Your task to perform on an android device: Do I have any events this weekend? Image 0: 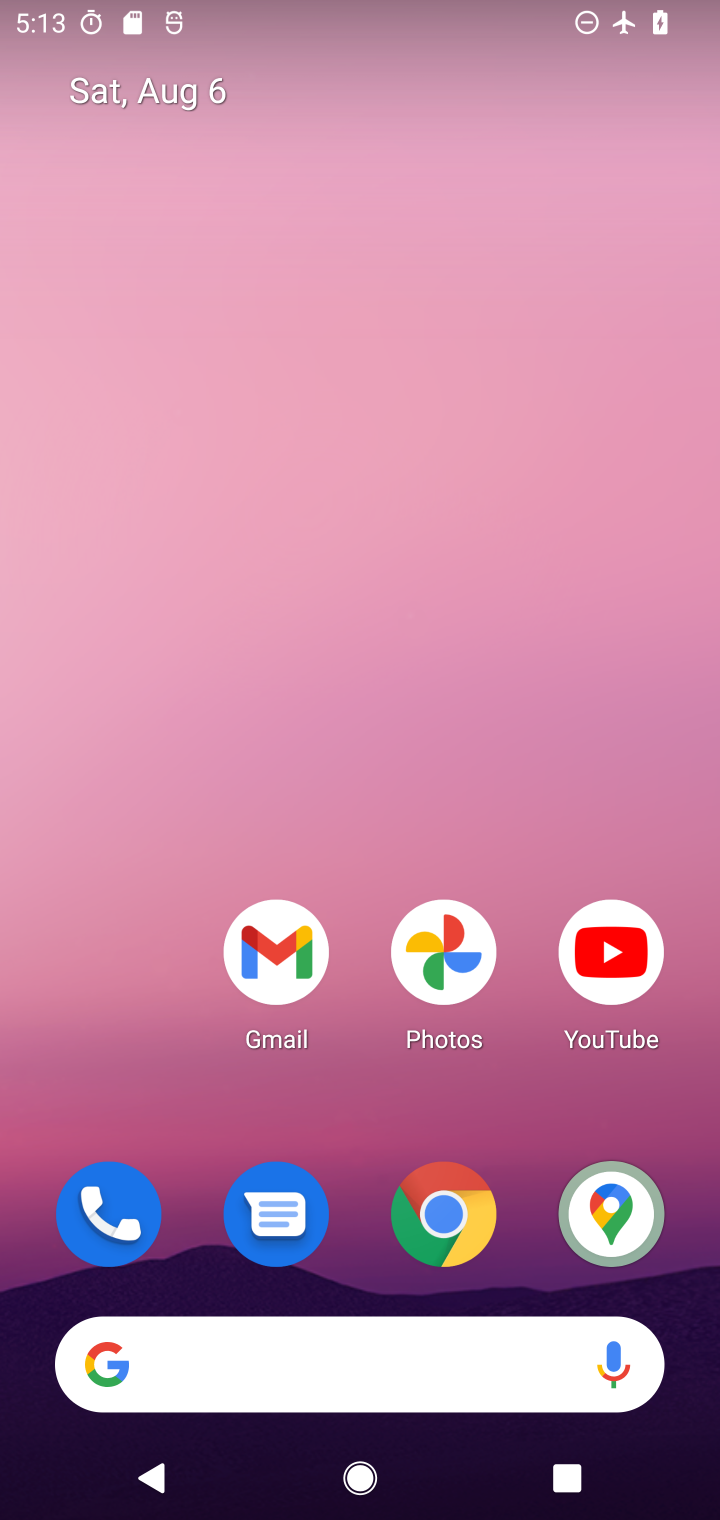
Step 0: drag from (348, 1272) to (348, 412)
Your task to perform on an android device: Do I have any events this weekend? Image 1: 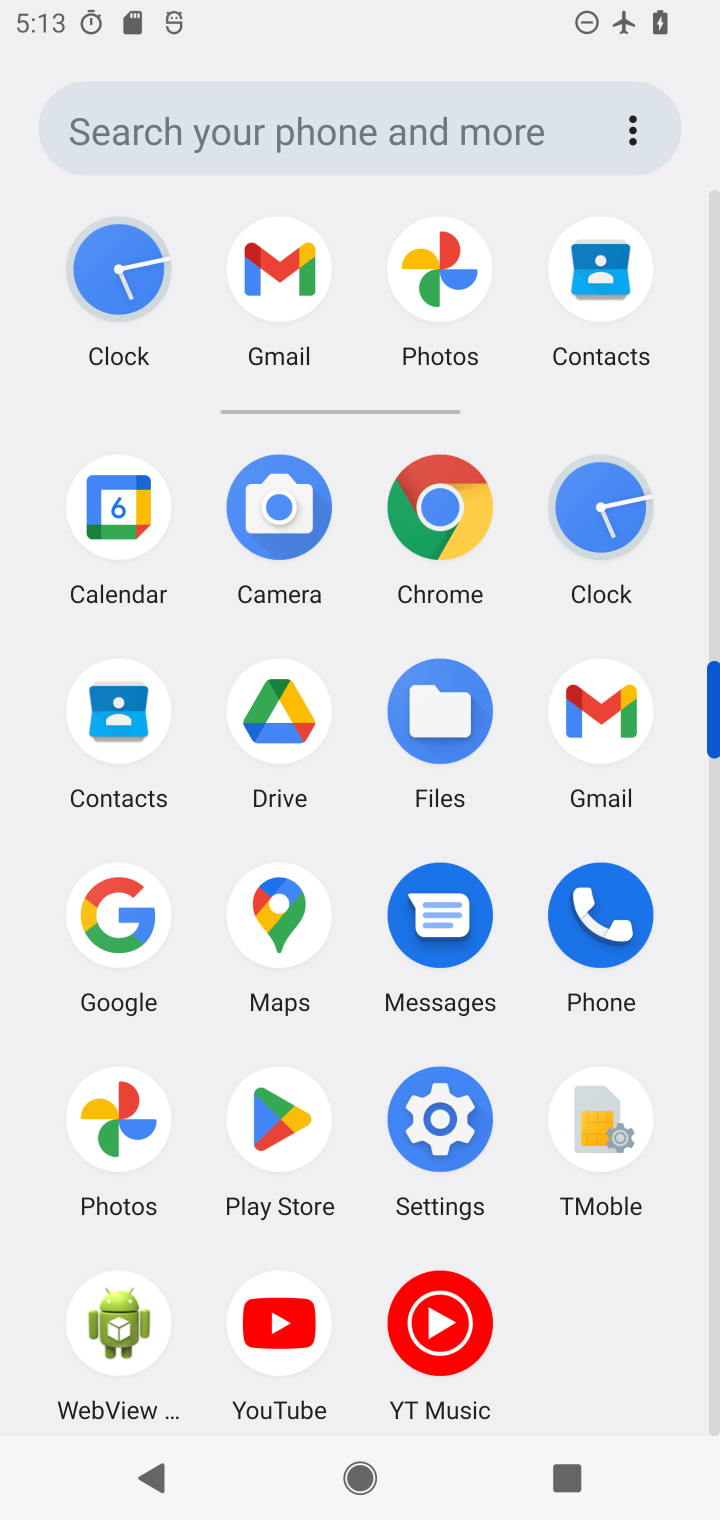
Step 1: click (91, 519)
Your task to perform on an android device: Do I have any events this weekend? Image 2: 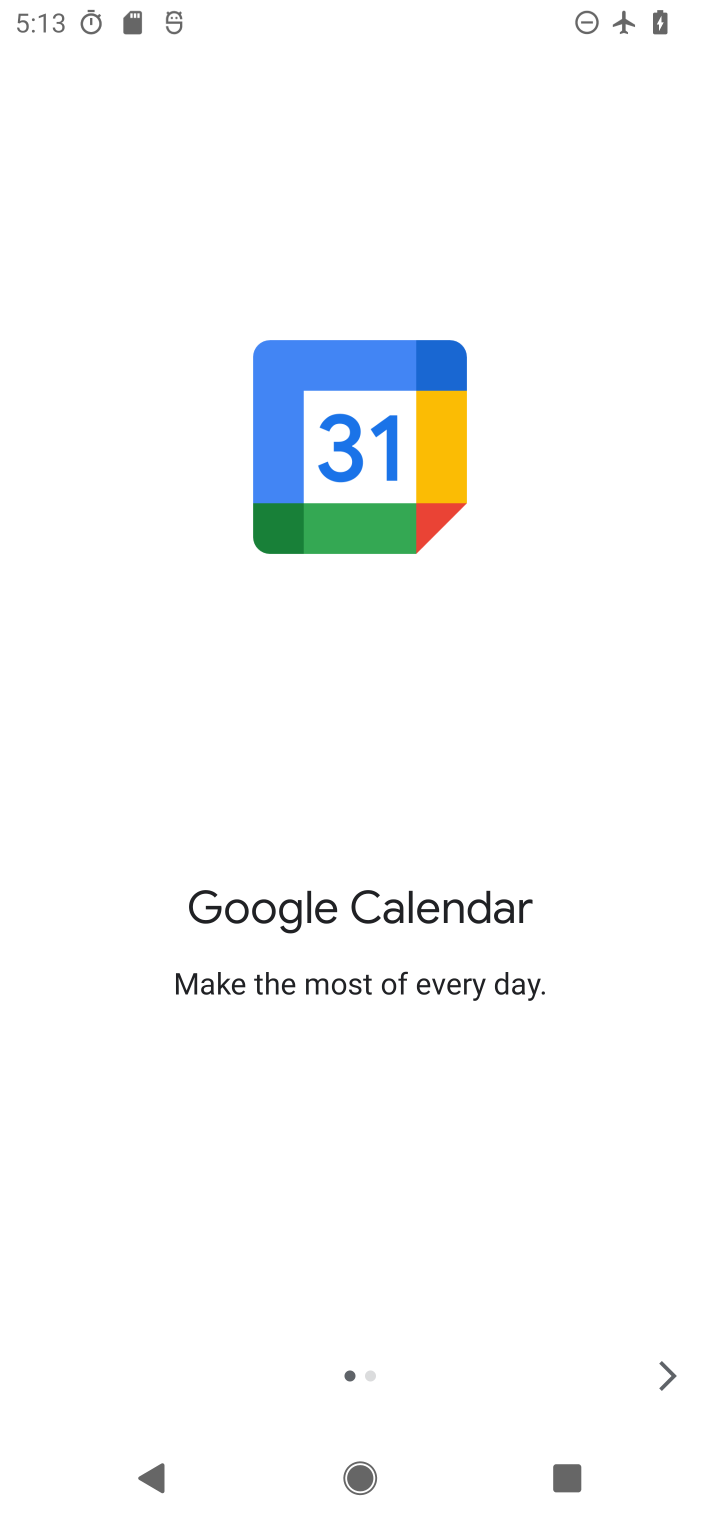
Step 2: click (675, 1388)
Your task to perform on an android device: Do I have any events this weekend? Image 3: 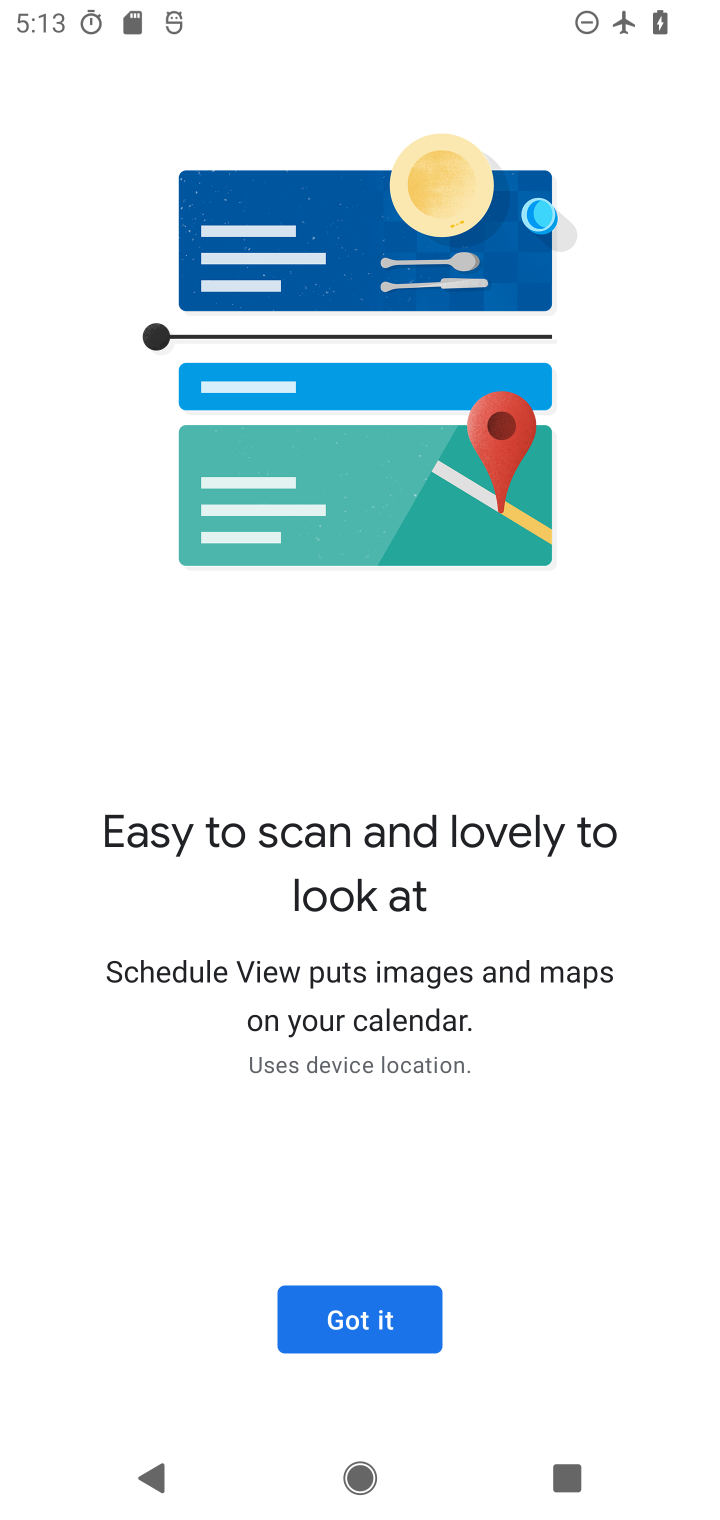
Step 3: click (396, 1331)
Your task to perform on an android device: Do I have any events this weekend? Image 4: 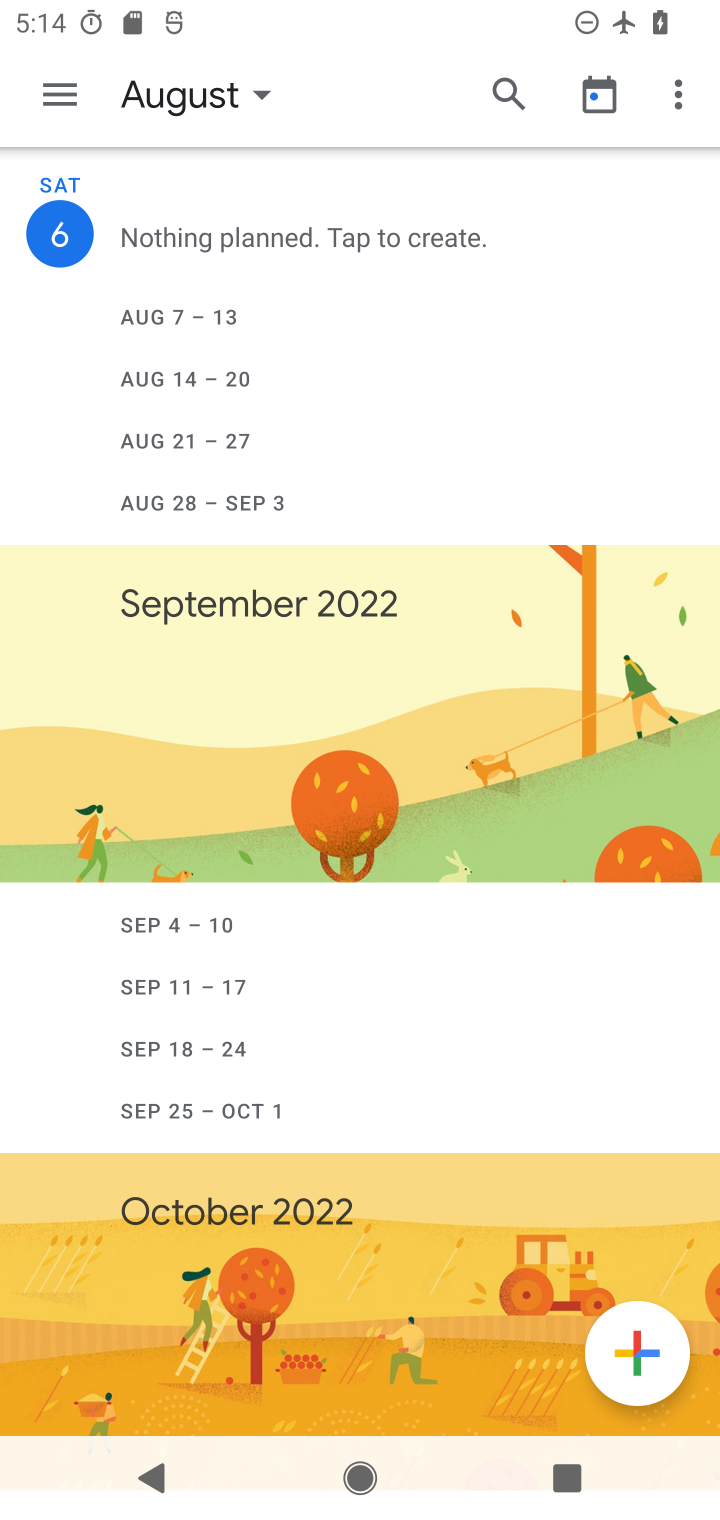
Step 4: click (62, 95)
Your task to perform on an android device: Do I have any events this weekend? Image 5: 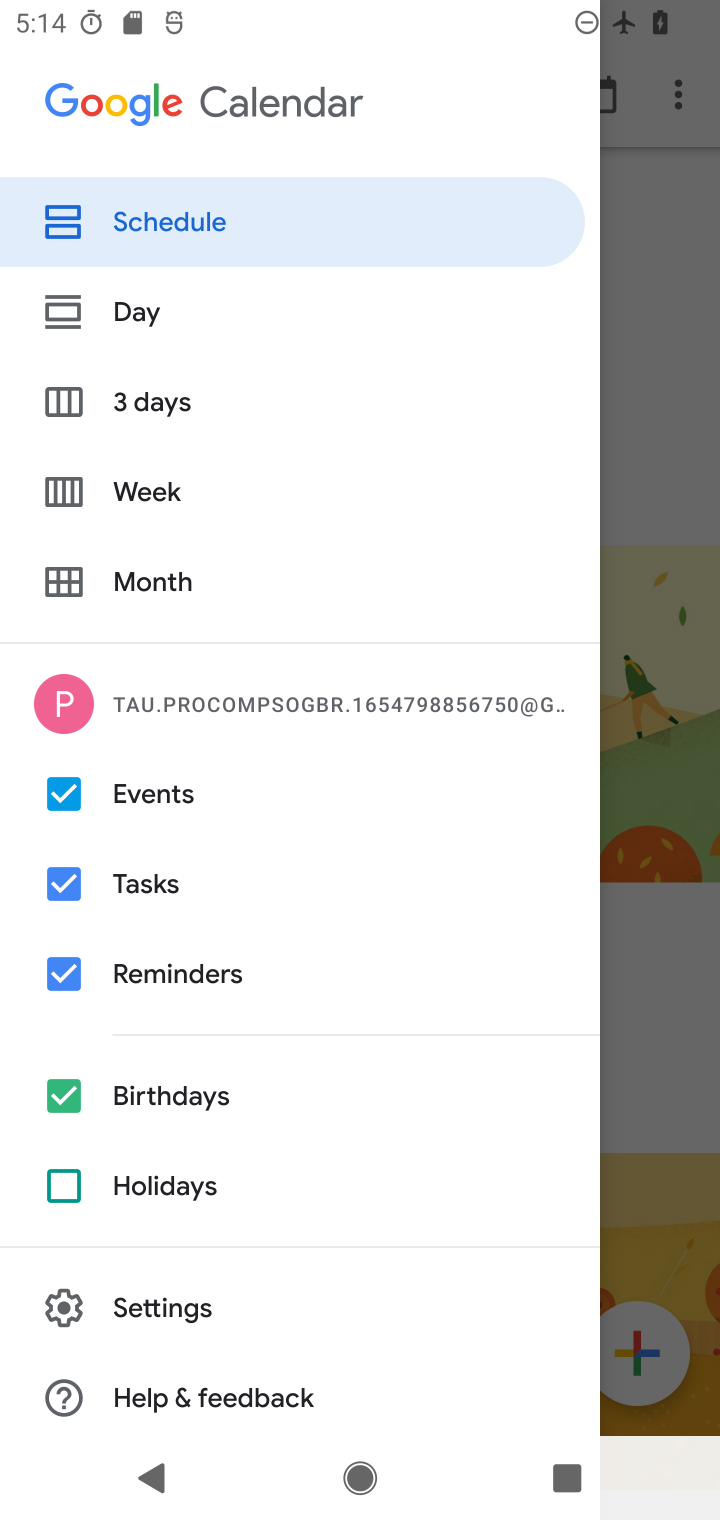
Step 5: click (124, 477)
Your task to perform on an android device: Do I have any events this weekend? Image 6: 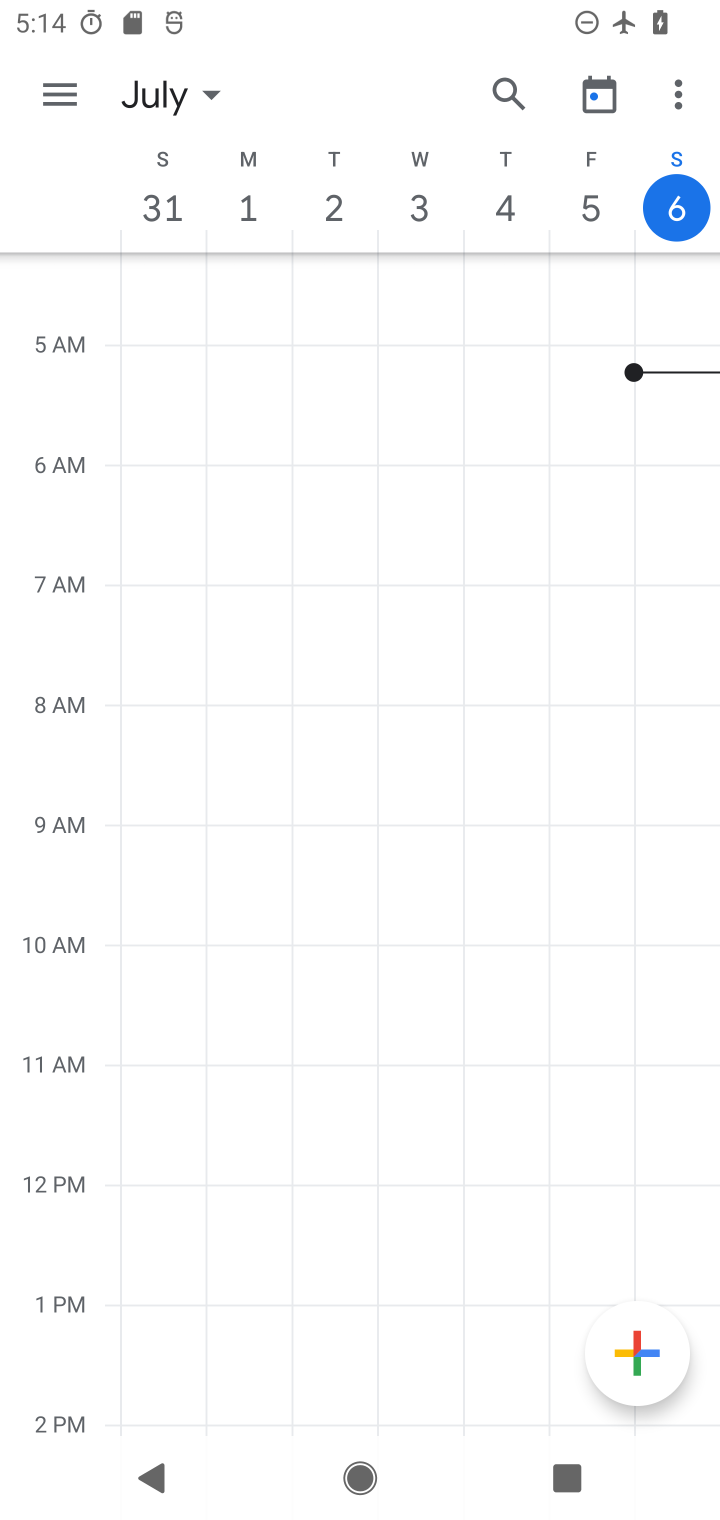
Step 6: task complete